Your task to perform on an android device: Add apple airpods pro to the cart on costco.com Image 0: 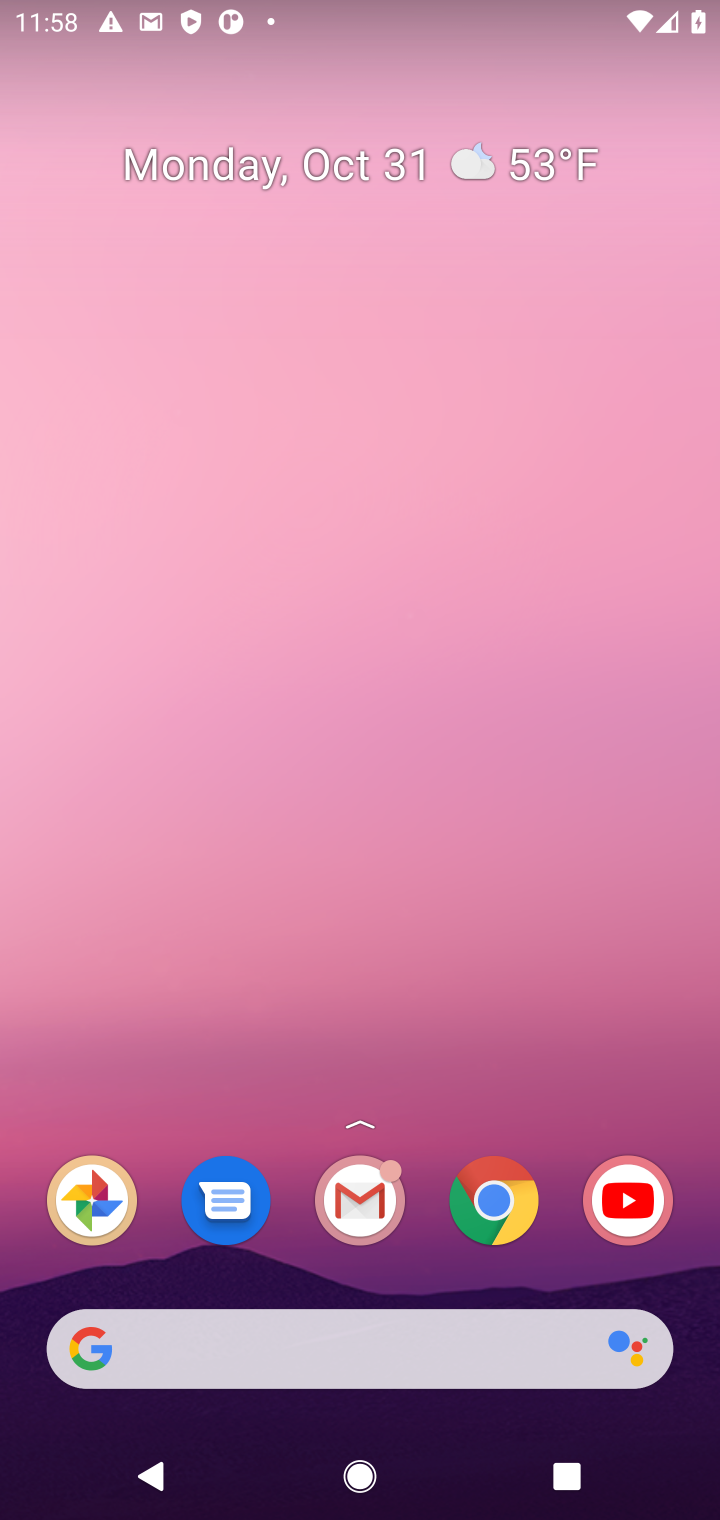
Step 0: click (504, 1217)
Your task to perform on an android device: Add apple airpods pro to the cart on costco.com Image 1: 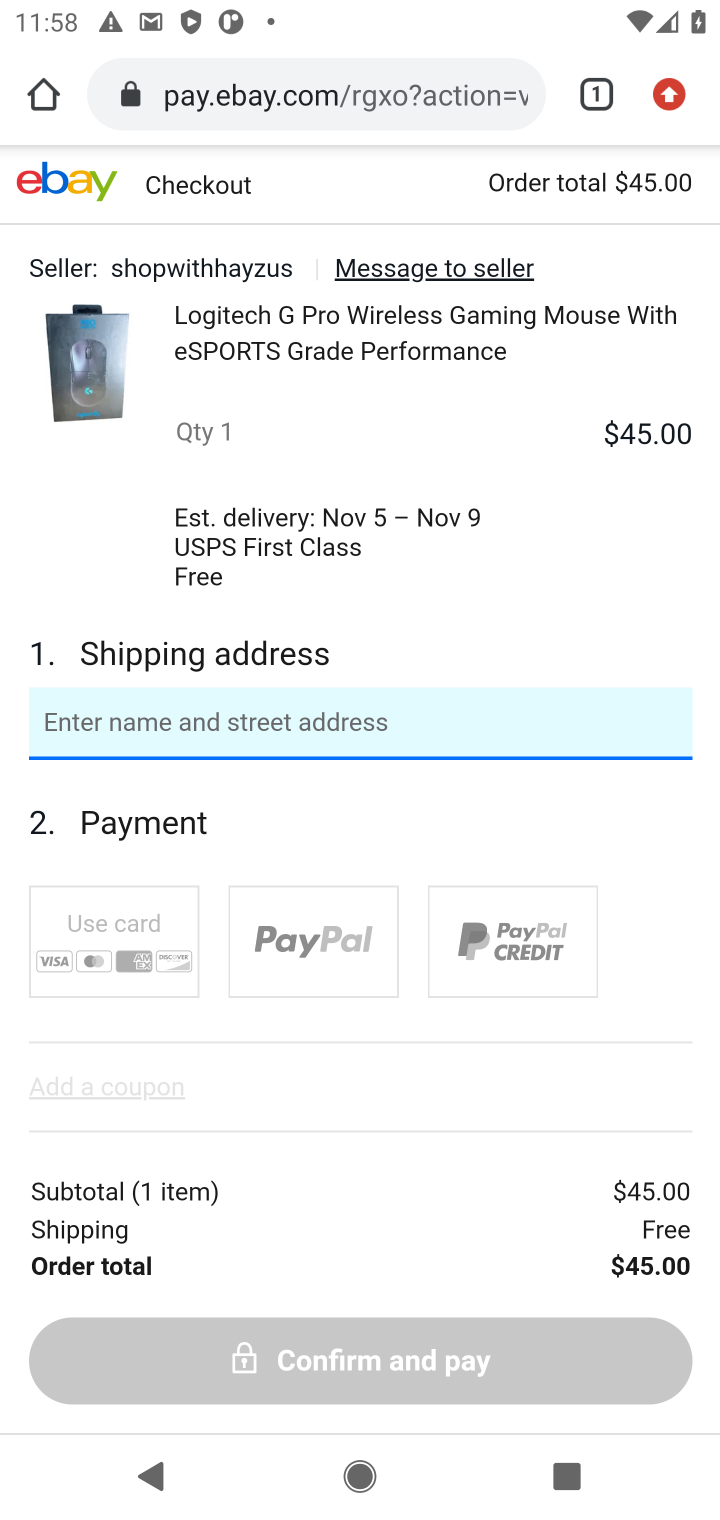
Step 1: click (418, 92)
Your task to perform on an android device: Add apple airpods pro to the cart on costco.com Image 2: 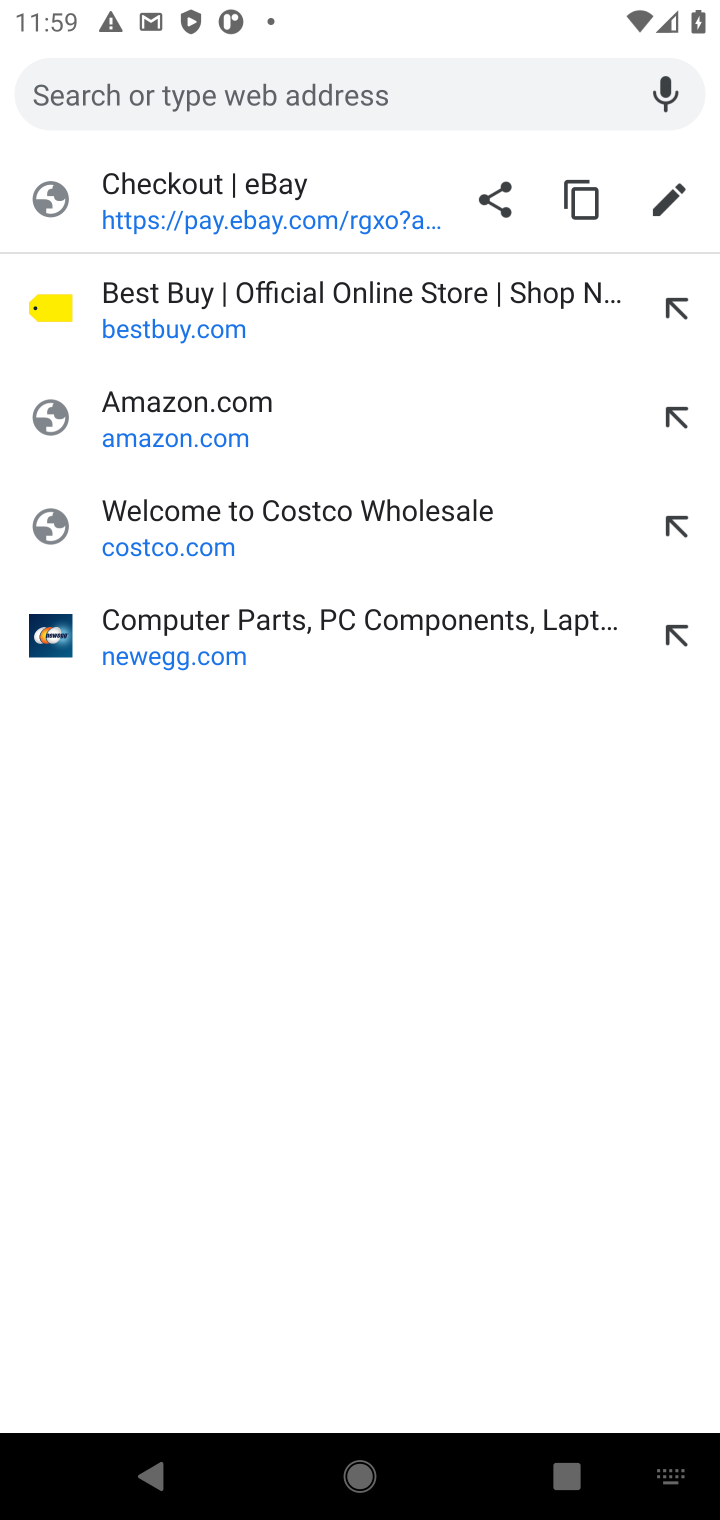
Step 2: click (369, 552)
Your task to perform on an android device: Add apple airpods pro to the cart on costco.com Image 3: 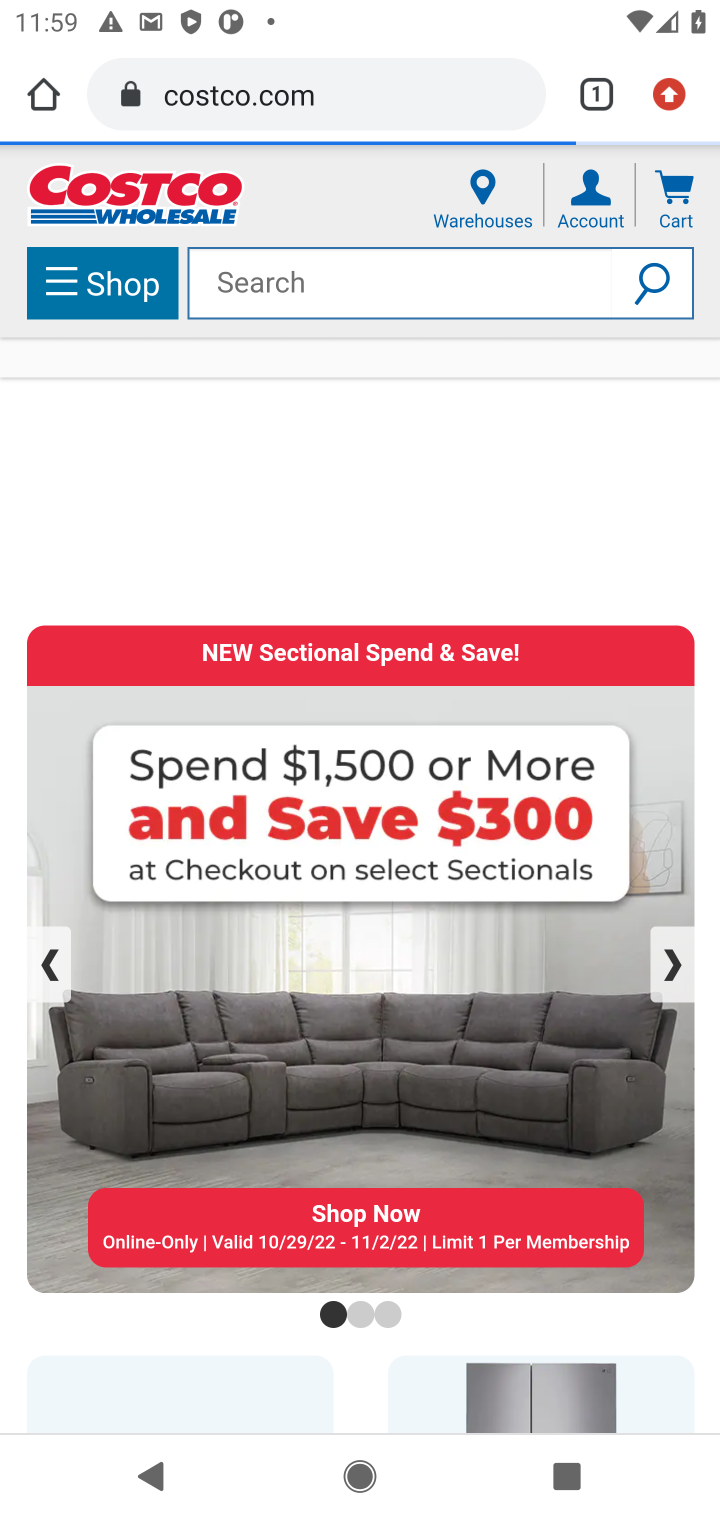
Step 3: click (325, 286)
Your task to perform on an android device: Add apple airpods pro to the cart on costco.com Image 4: 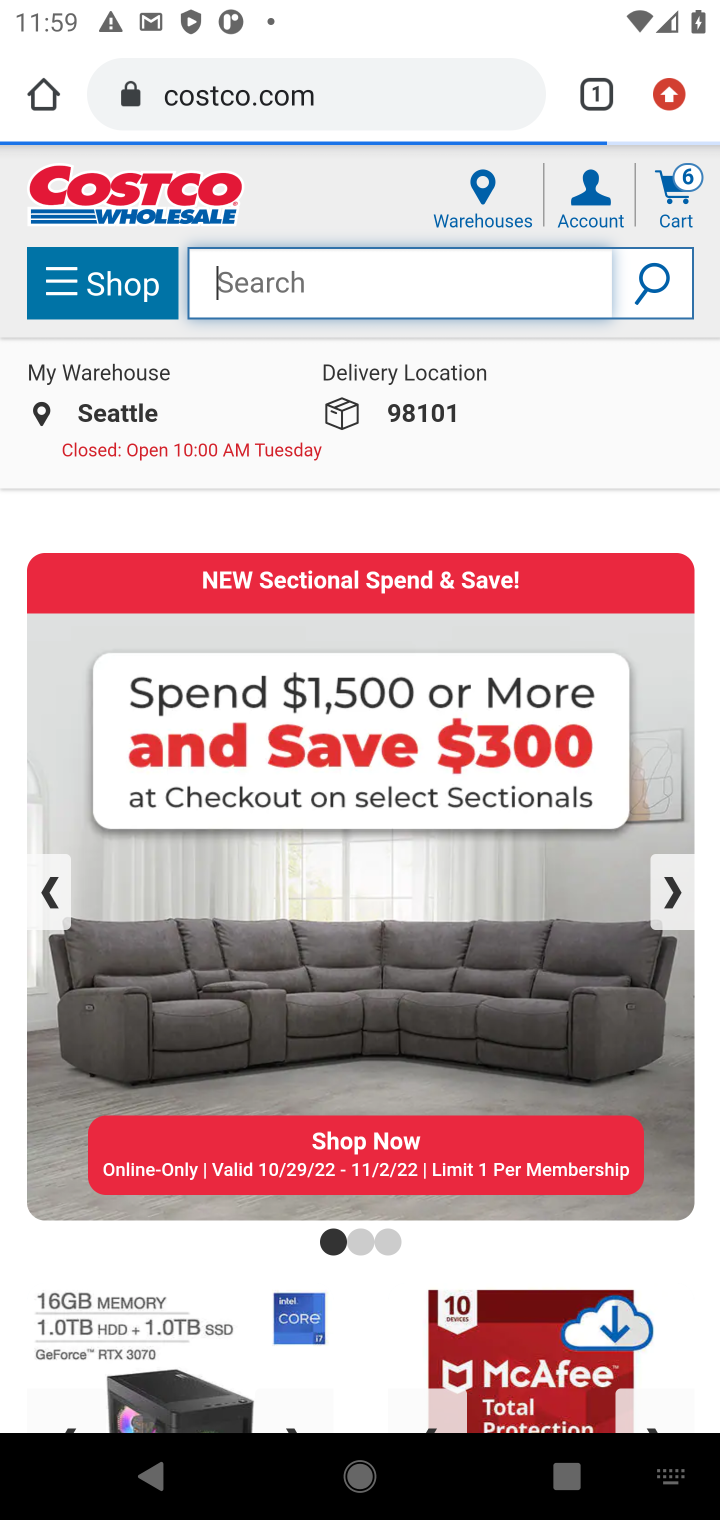
Step 4: click (325, 286)
Your task to perform on an android device: Add apple airpods pro to the cart on costco.com Image 5: 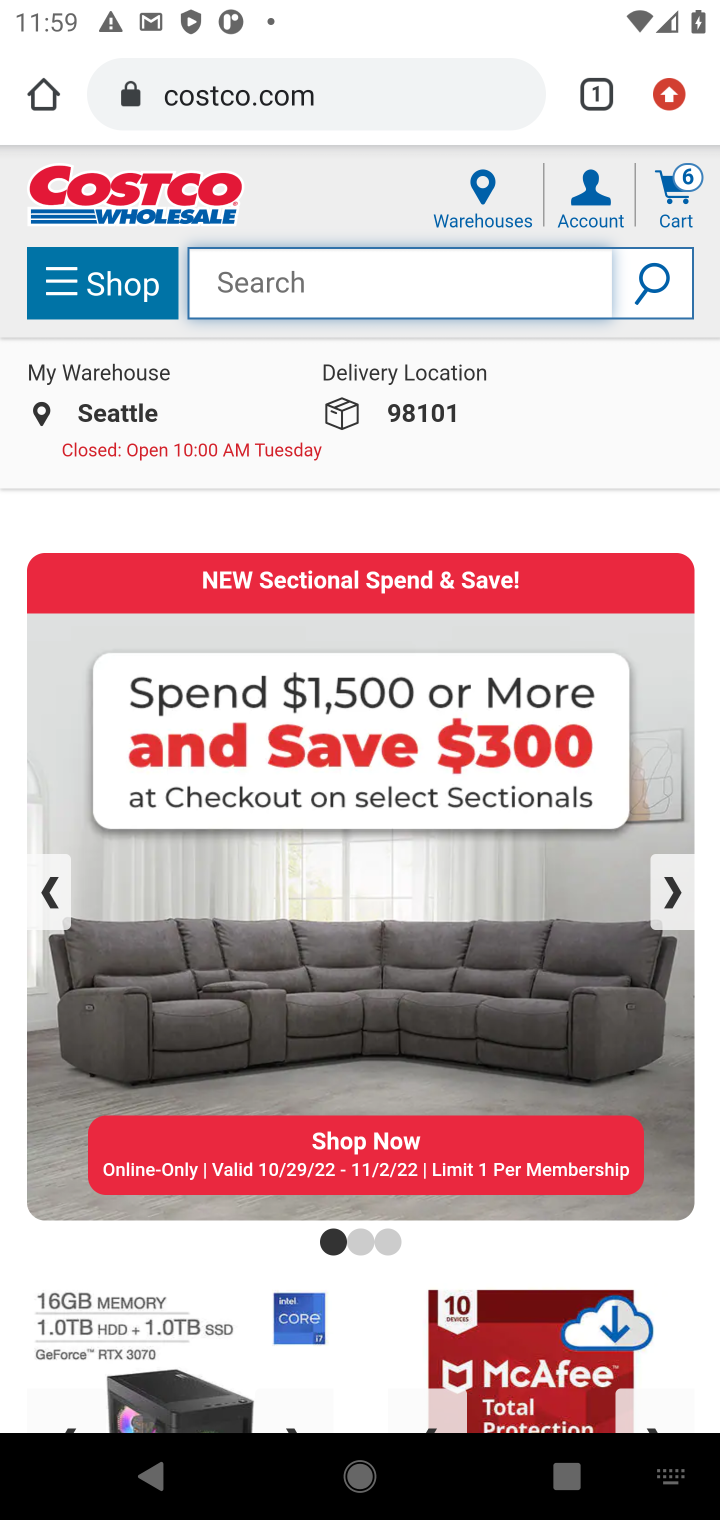
Step 5: type "apple airpods pro"
Your task to perform on an android device: Add apple airpods pro to the cart on costco.com Image 6: 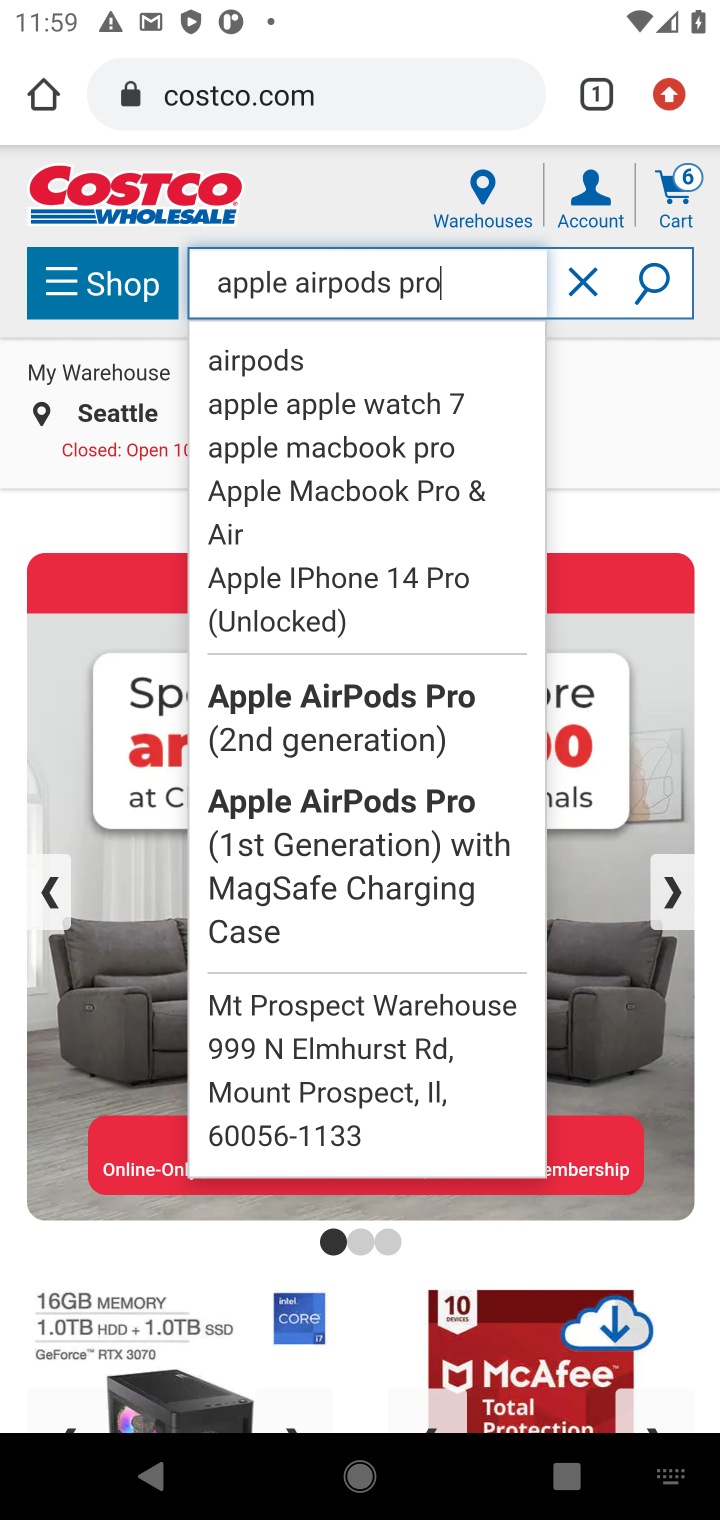
Step 6: press enter
Your task to perform on an android device: Add apple airpods pro to the cart on costco.com Image 7: 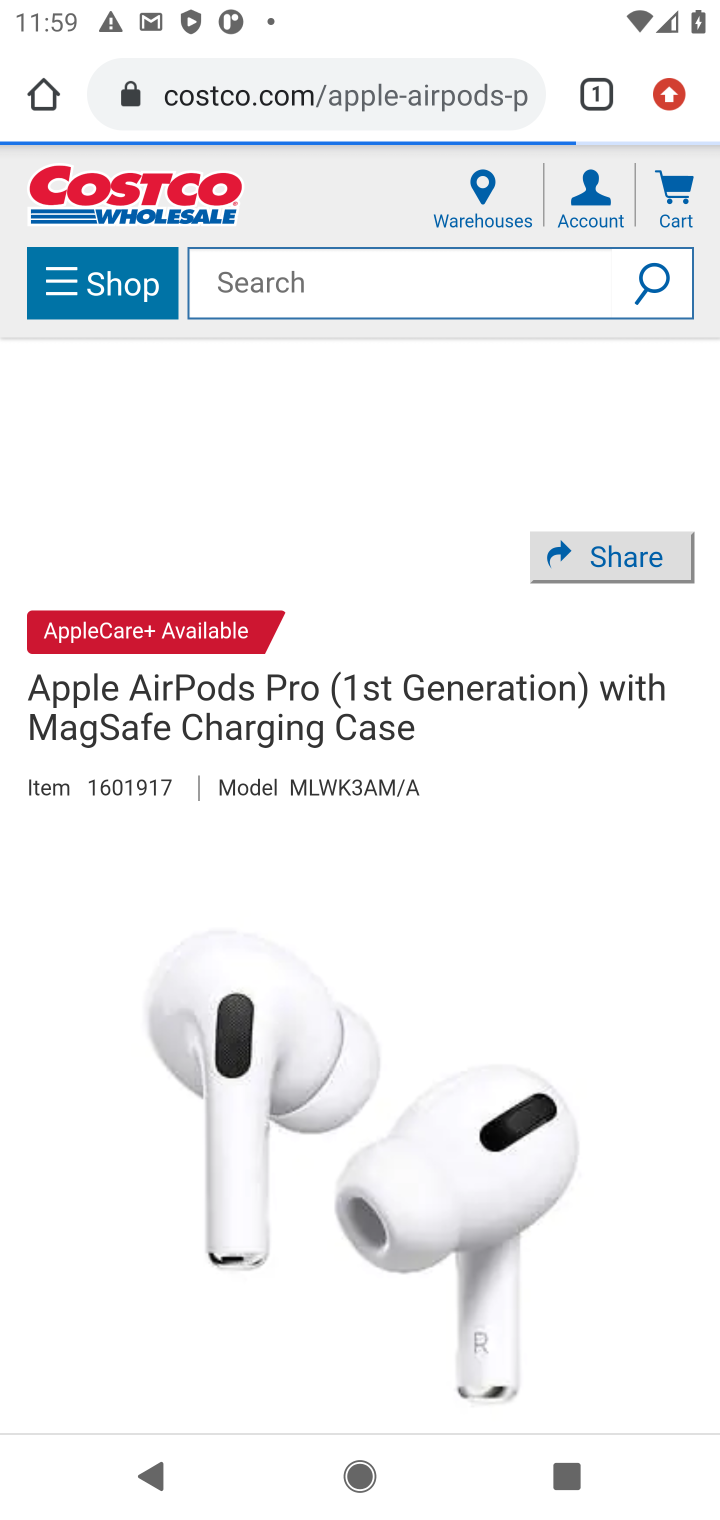
Step 7: drag from (557, 1043) to (597, 569)
Your task to perform on an android device: Add apple airpods pro to the cart on costco.com Image 8: 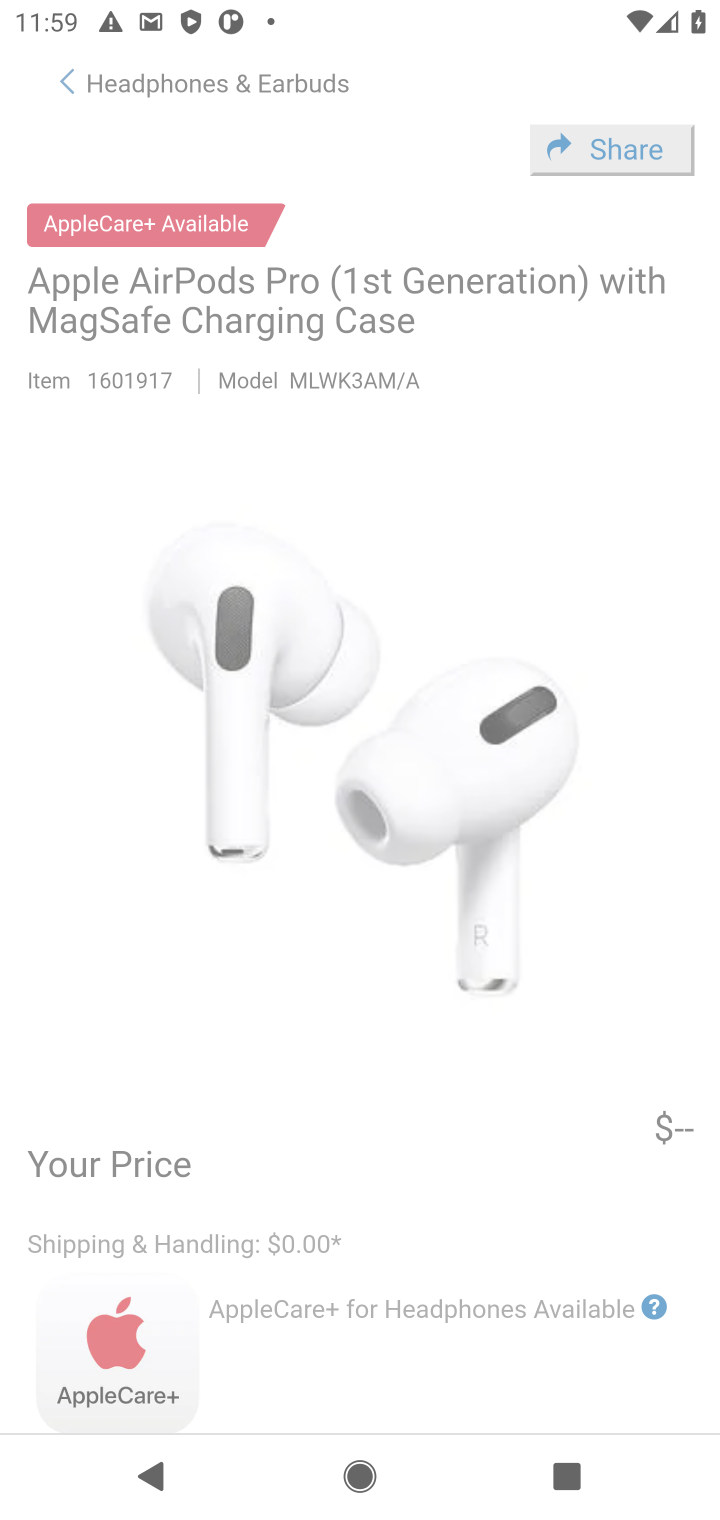
Step 8: drag from (405, 1229) to (507, 266)
Your task to perform on an android device: Add apple airpods pro to the cart on costco.com Image 9: 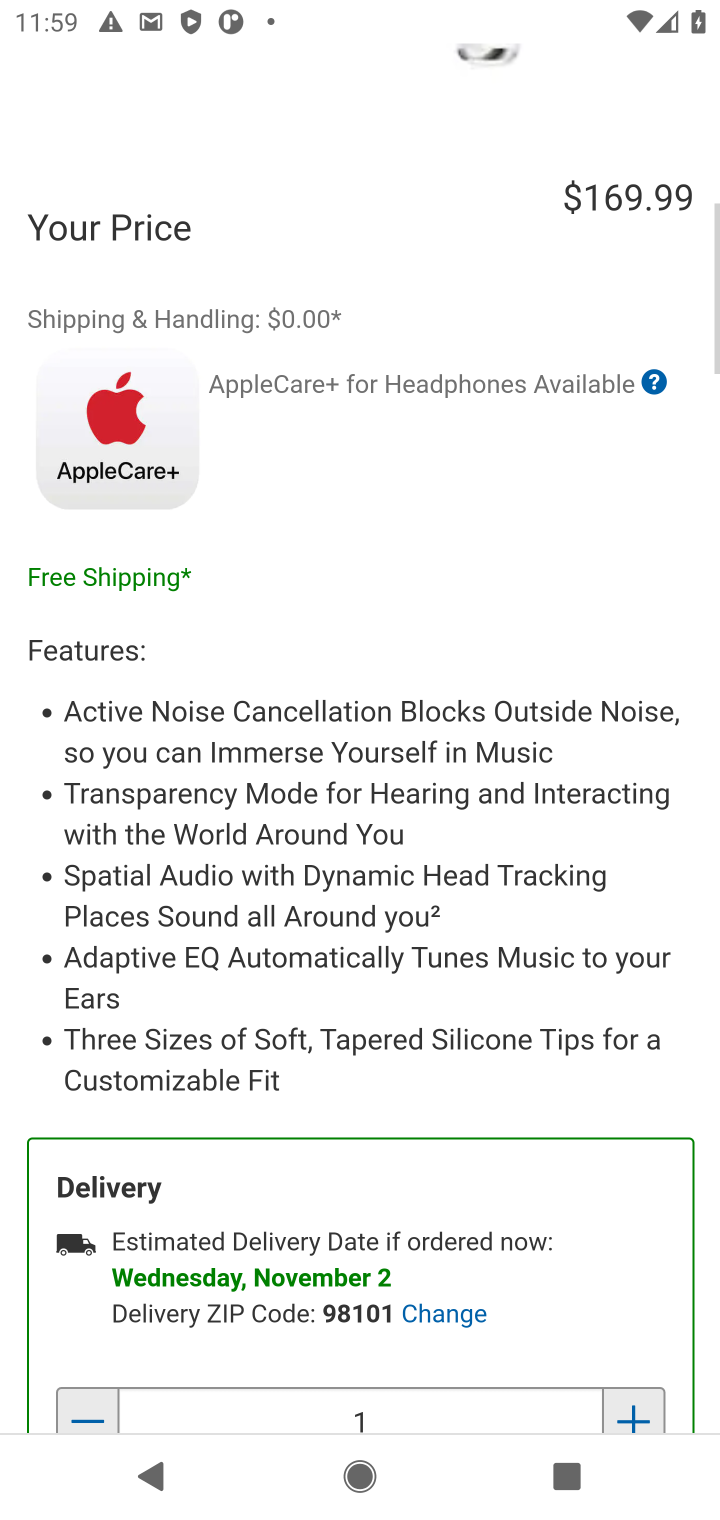
Step 9: drag from (509, 735) to (519, 357)
Your task to perform on an android device: Add apple airpods pro to the cart on costco.com Image 10: 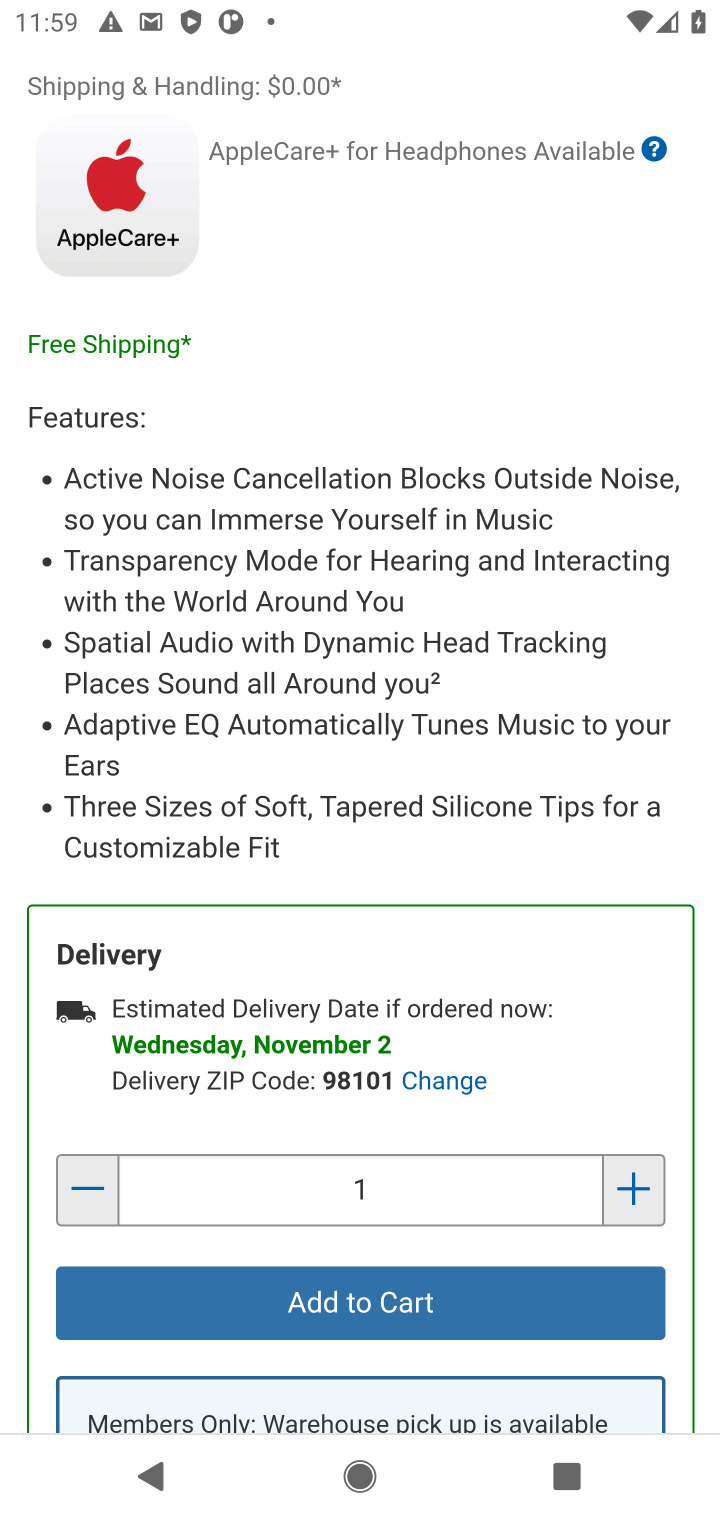
Step 10: click (337, 1281)
Your task to perform on an android device: Add apple airpods pro to the cart on costco.com Image 11: 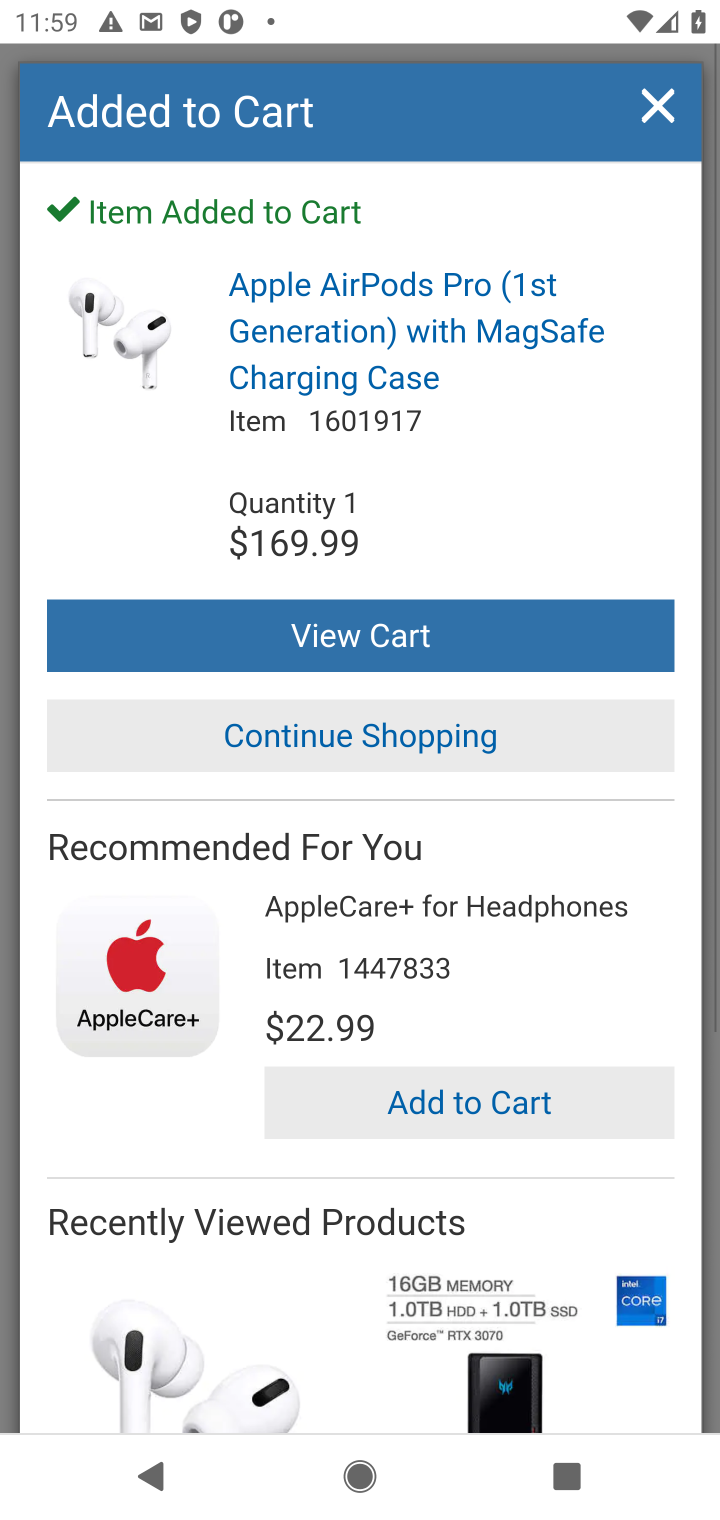
Step 11: click (538, 661)
Your task to perform on an android device: Add apple airpods pro to the cart on costco.com Image 12: 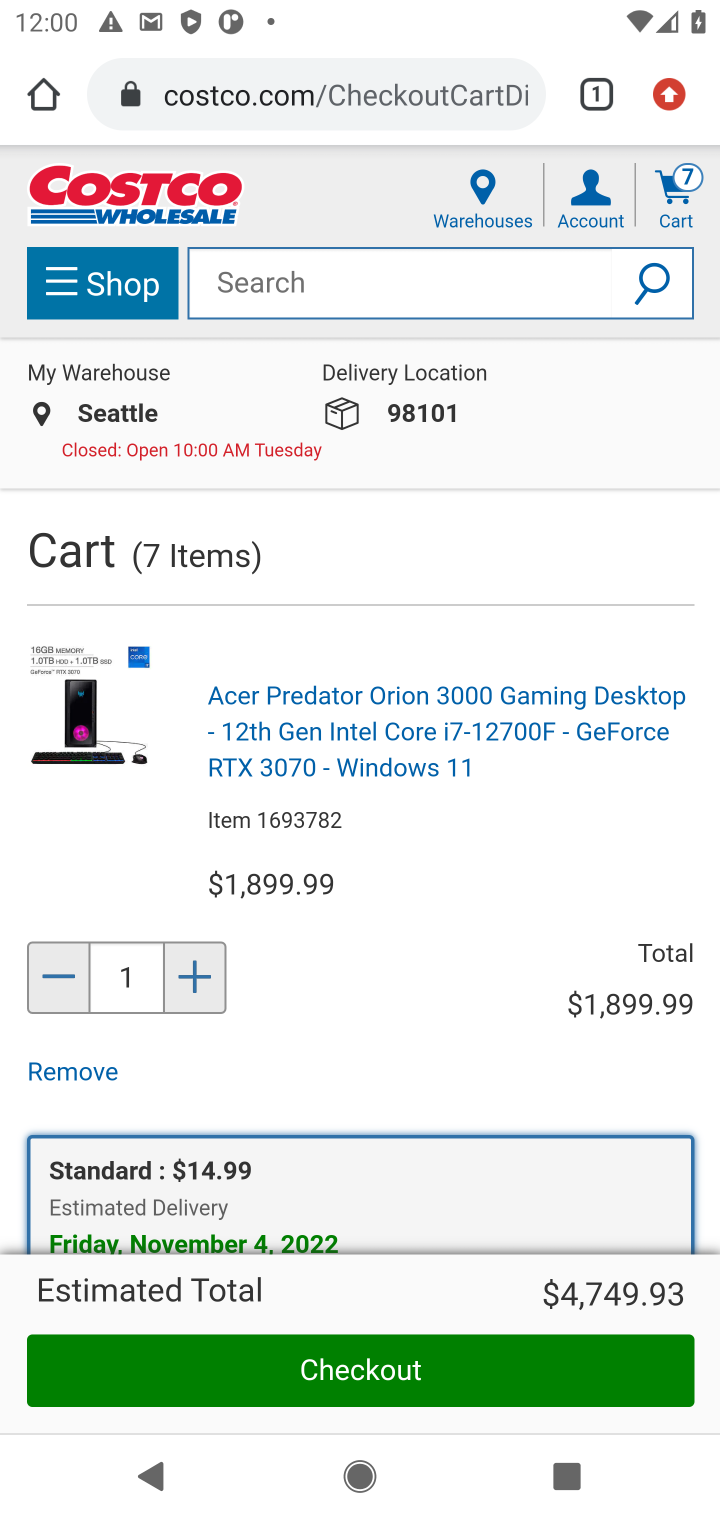
Step 12: drag from (510, 1002) to (388, 405)
Your task to perform on an android device: Add apple airpods pro to the cart on costco.com Image 13: 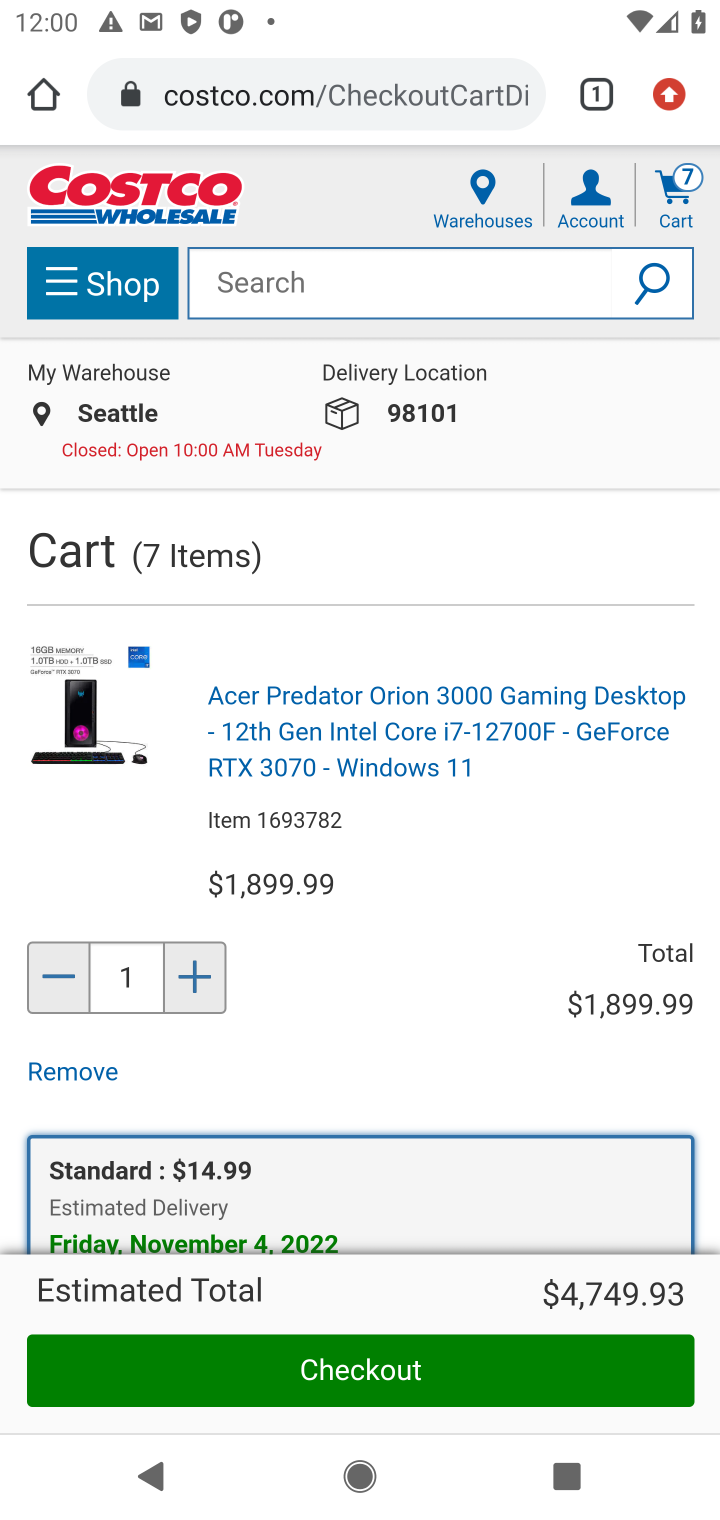
Step 13: click (301, 1356)
Your task to perform on an android device: Add apple airpods pro to the cart on costco.com Image 14: 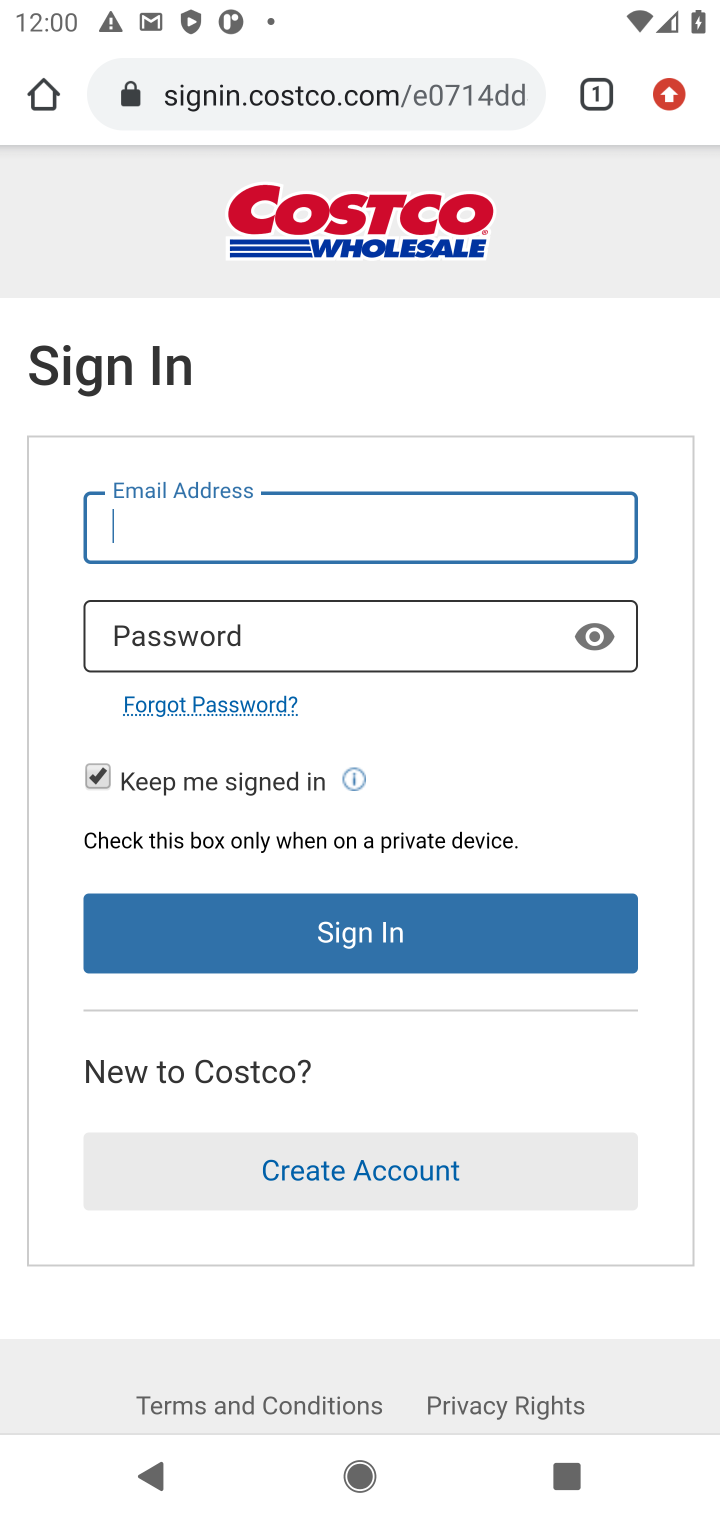
Step 14: task complete